Your task to perform on an android device: add a contact in the contacts app Image 0: 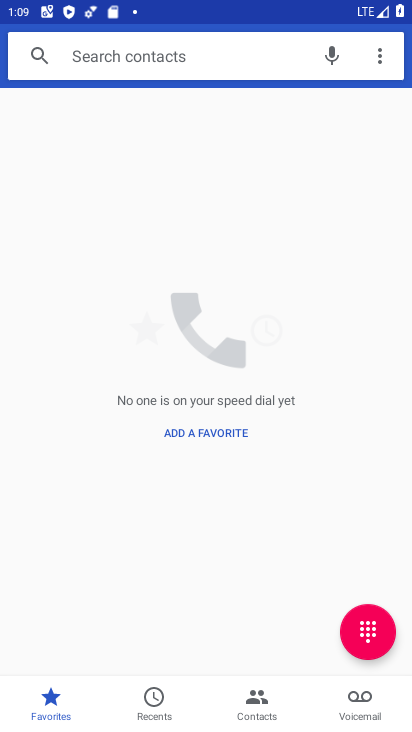
Step 0: press home button
Your task to perform on an android device: add a contact in the contacts app Image 1: 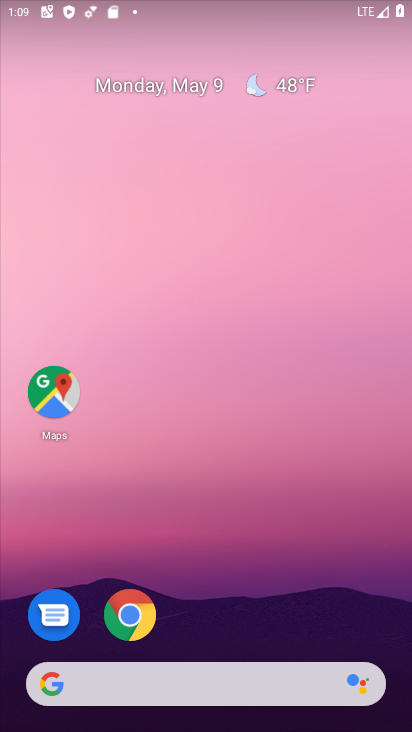
Step 1: drag from (393, 672) to (330, 103)
Your task to perform on an android device: add a contact in the contacts app Image 2: 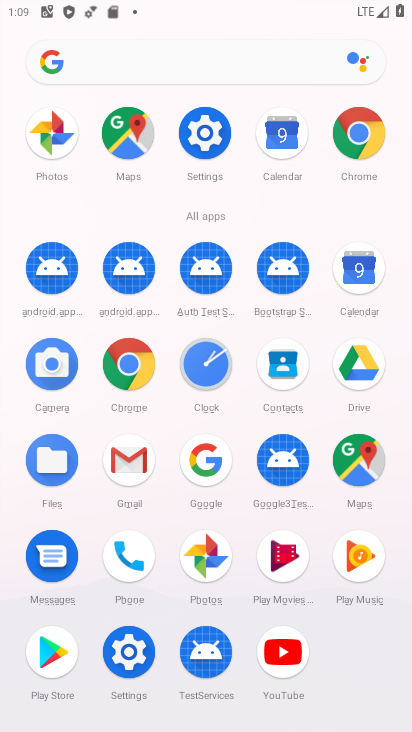
Step 2: click (282, 367)
Your task to perform on an android device: add a contact in the contacts app Image 3: 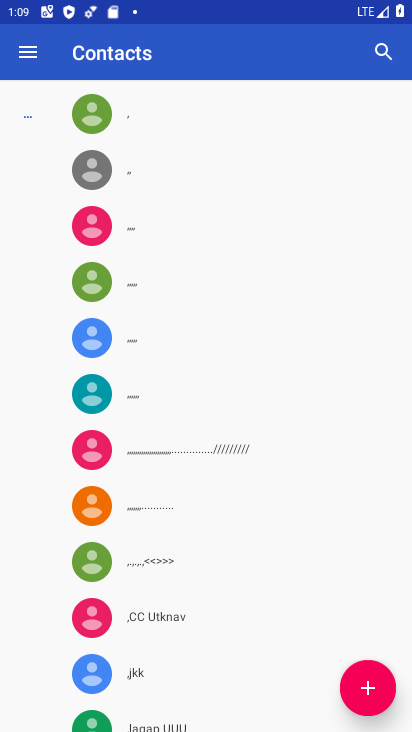
Step 3: click (367, 690)
Your task to perform on an android device: add a contact in the contacts app Image 4: 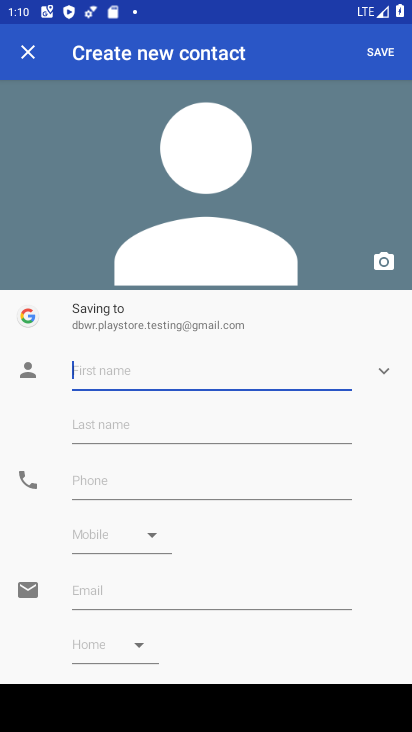
Step 4: type "aghh"
Your task to perform on an android device: add a contact in the contacts app Image 5: 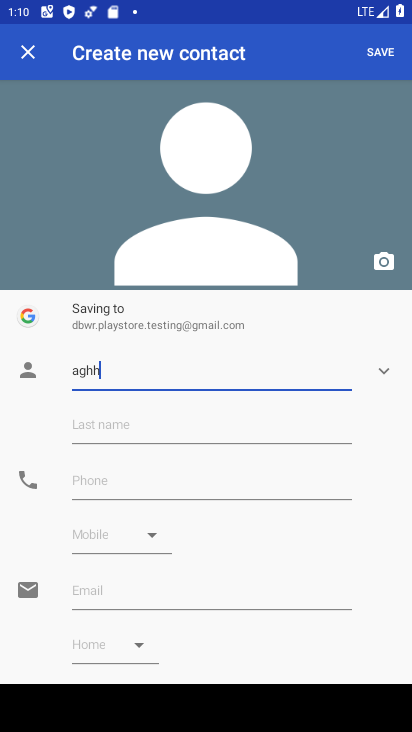
Step 5: click (144, 483)
Your task to perform on an android device: add a contact in the contacts app Image 6: 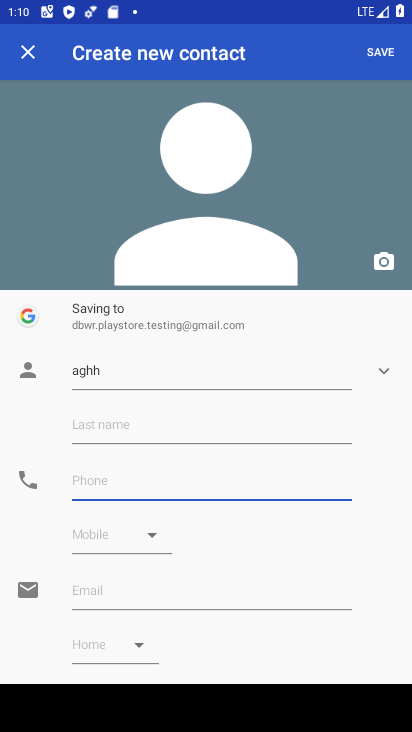
Step 6: type "958684343"
Your task to perform on an android device: add a contact in the contacts app Image 7: 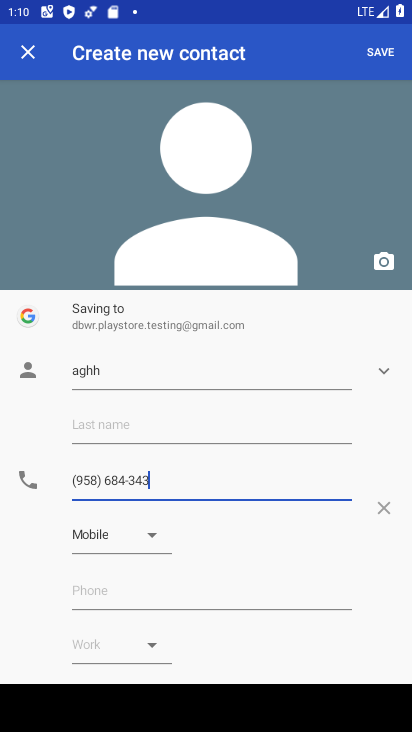
Step 7: click (145, 537)
Your task to perform on an android device: add a contact in the contacts app Image 8: 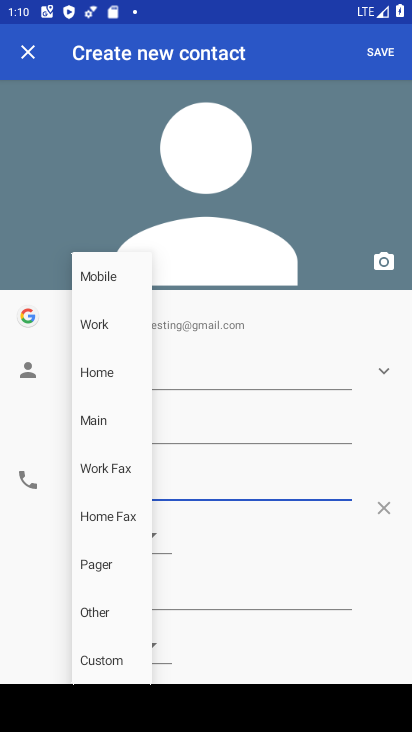
Step 8: click (107, 368)
Your task to perform on an android device: add a contact in the contacts app Image 9: 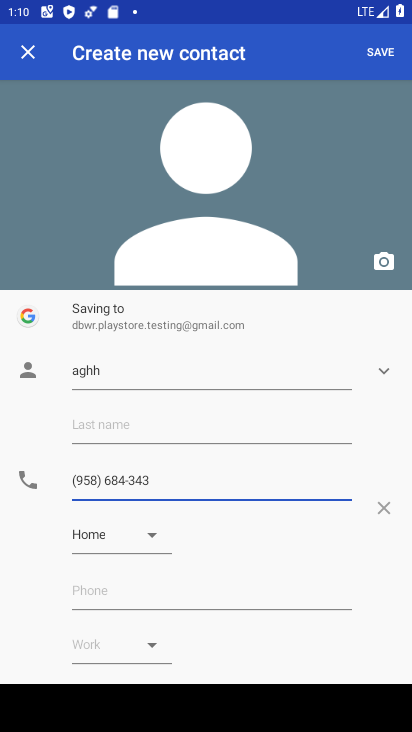
Step 9: click (371, 48)
Your task to perform on an android device: add a contact in the contacts app Image 10: 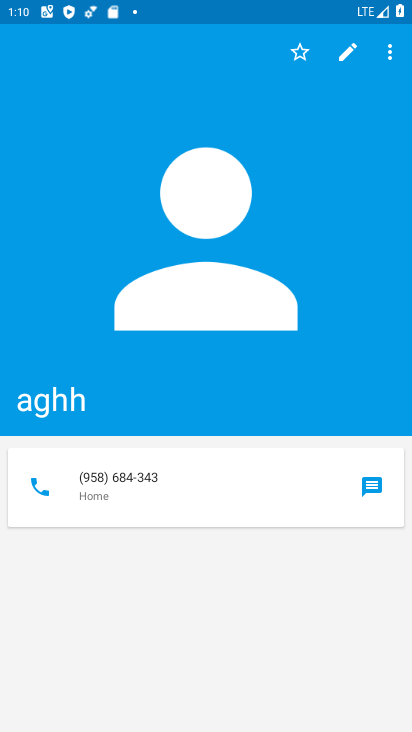
Step 10: task complete